Your task to perform on an android device: open a bookmark in the chrome app Image 0: 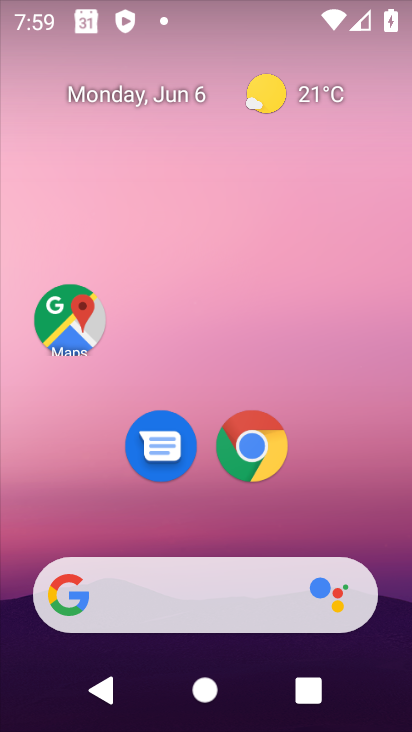
Step 0: click (261, 448)
Your task to perform on an android device: open a bookmark in the chrome app Image 1: 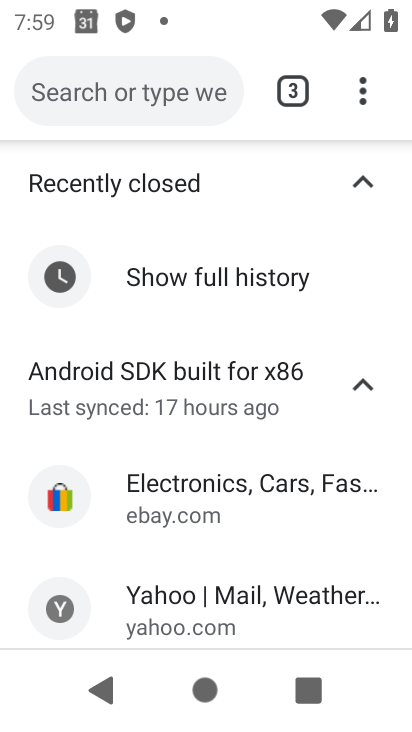
Step 1: click (358, 86)
Your task to perform on an android device: open a bookmark in the chrome app Image 2: 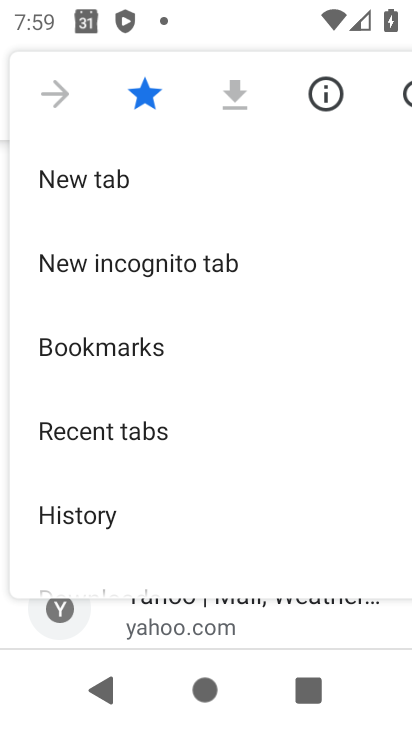
Step 2: click (154, 347)
Your task to perform on an android device: open a bookmark in the chrome app Image 3: 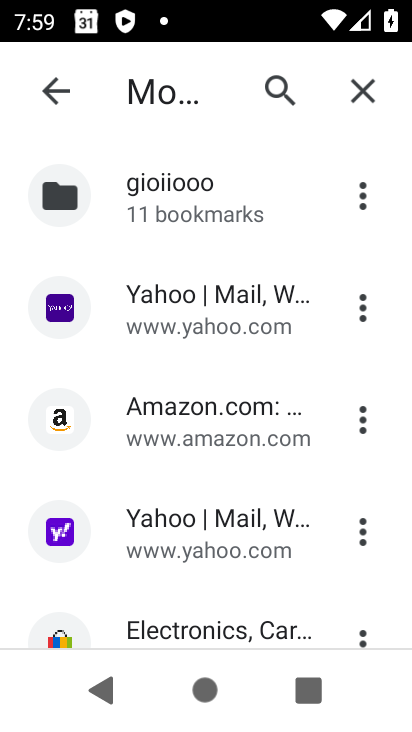
Step 3: task complete